Your task to perform on an android device: Search for the best way to make a resume. Image 0: 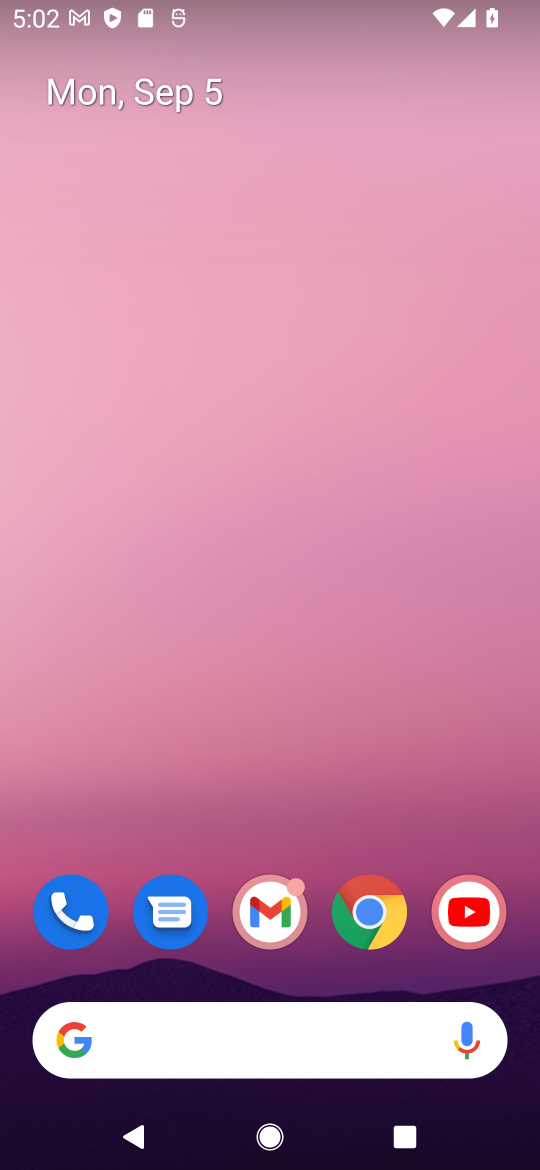
Step 0: click (366, 923)
Your task to perform on an android device: Search for the best way to make a resume. Image 1: 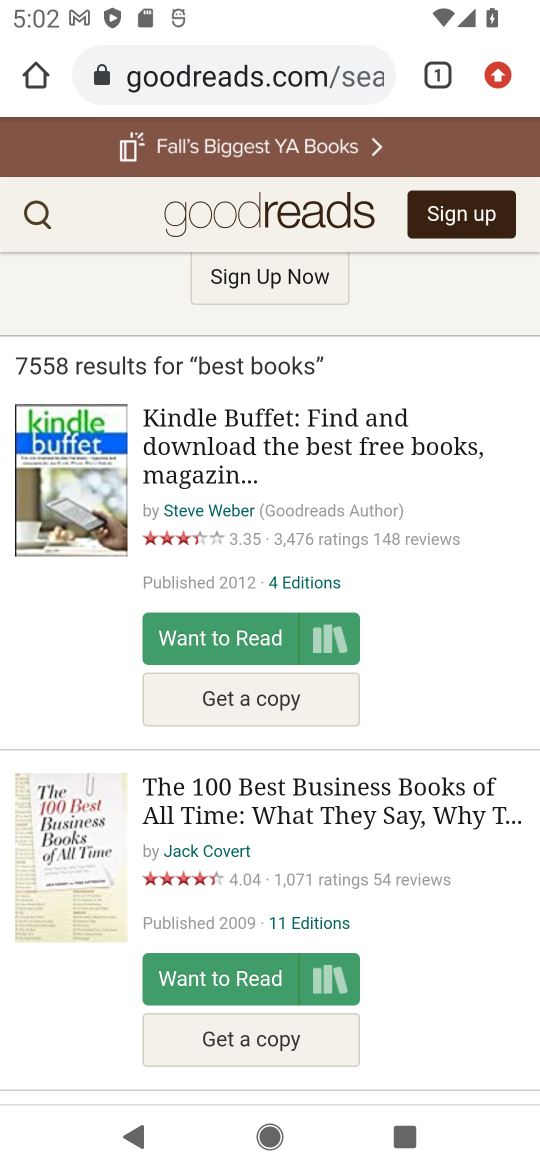
Step 1: drag from (356, 903) to (356, 782)
Your task to perform on an android device: Search for the best way to make a resume. Image 2: 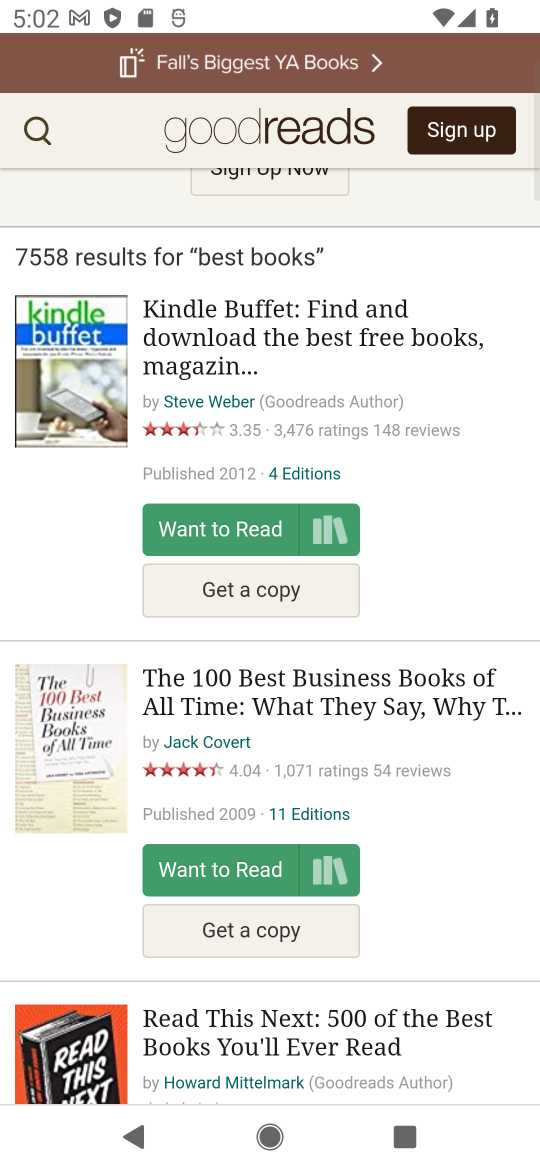
Step 2: drag from (261, 240) to (279, 351)
Your task to perform on an android device: Search for the best way to make a resume. Image 3: 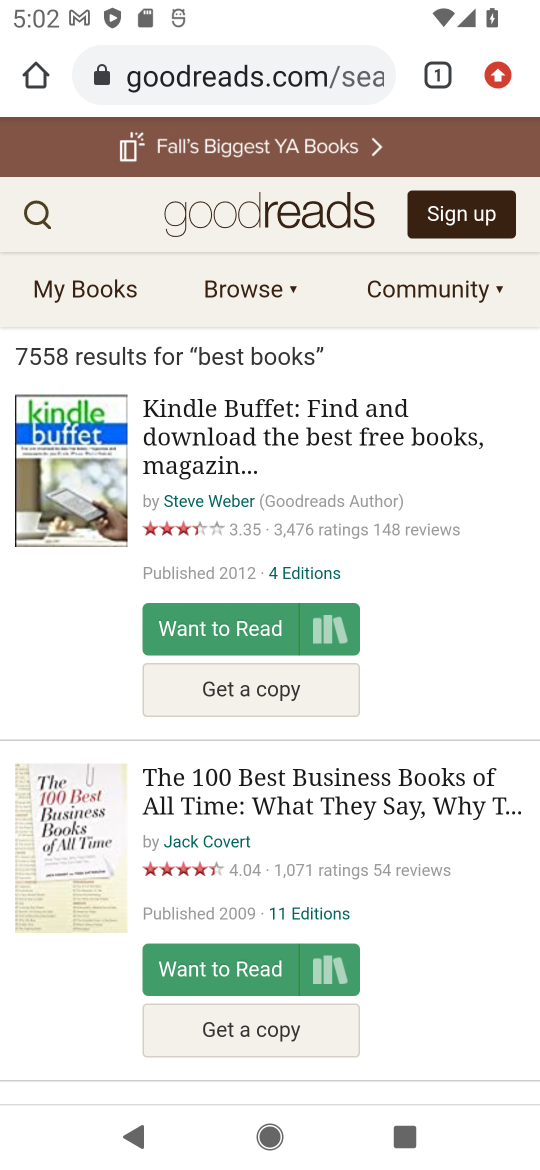
Step 3: click (271, 64)
Your task to perform on an android device: Search for the best way to make a resume. Image 4: 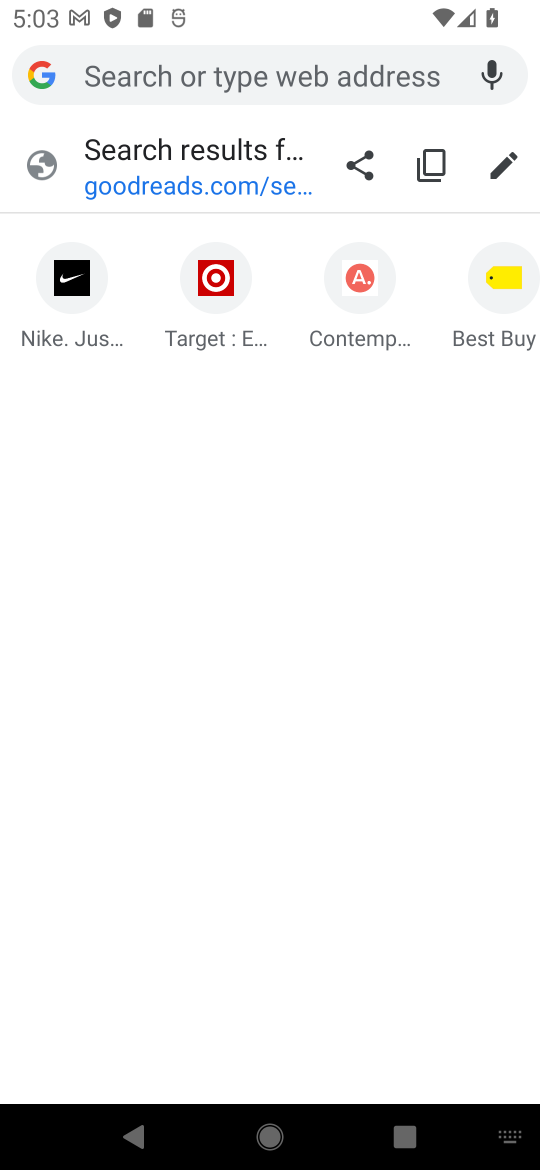
Step 4: type "best way to make a resume"
Your task to perform on an android device: Search for the best way to make a resume. Image 5: 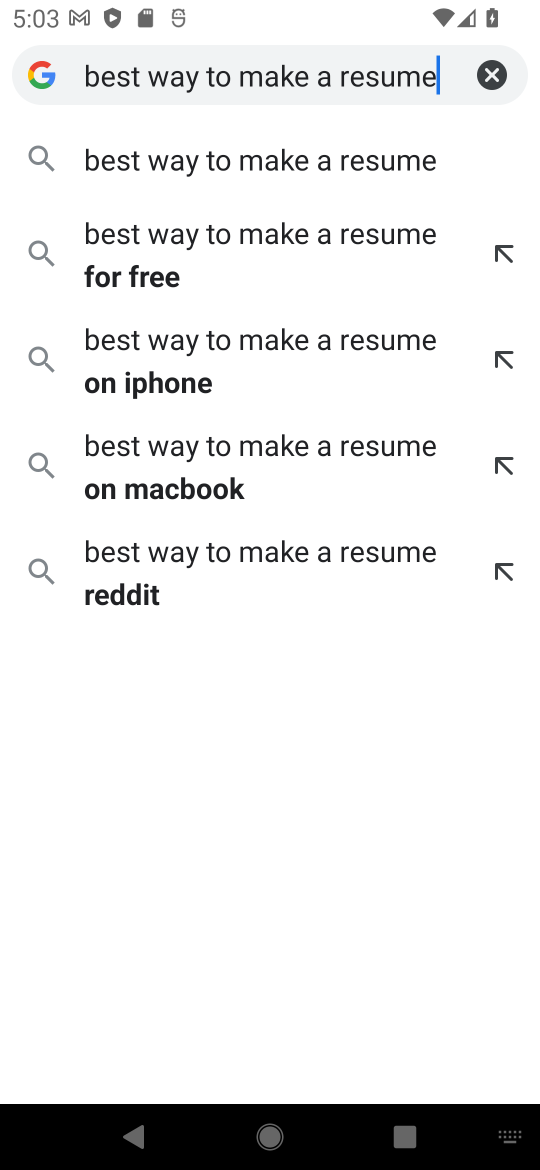
Step 5: press enter
Your task to perform on an android device: Search for the best way to make a resume. Image 6: 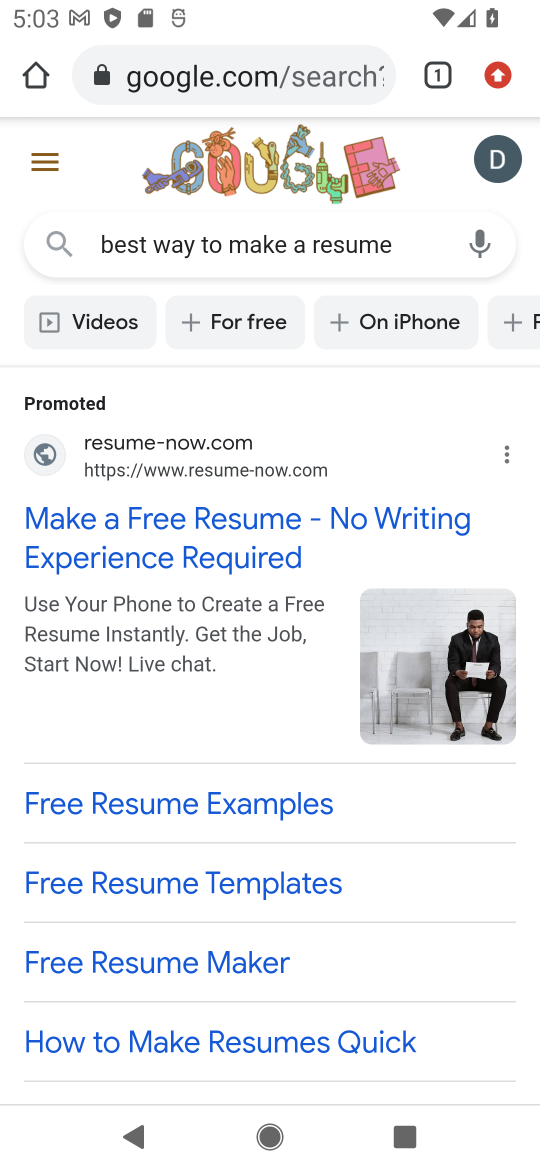
Step 6: task complete